Your task to perform on an android device: Open network settings Image 0: 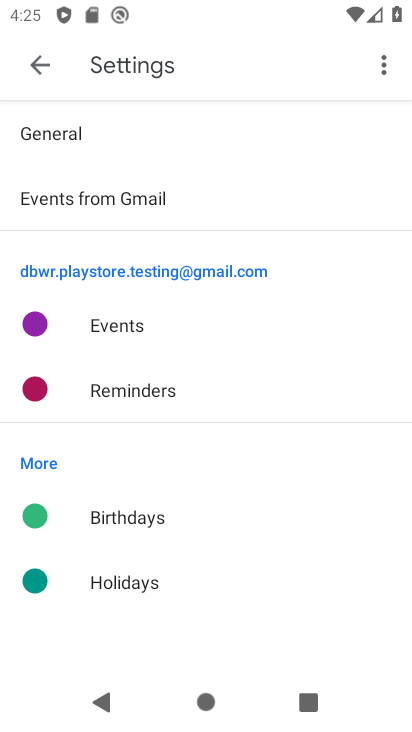
Step 0: click (31, 71)
Your task to perform on an android device: Open network settings Image 1: 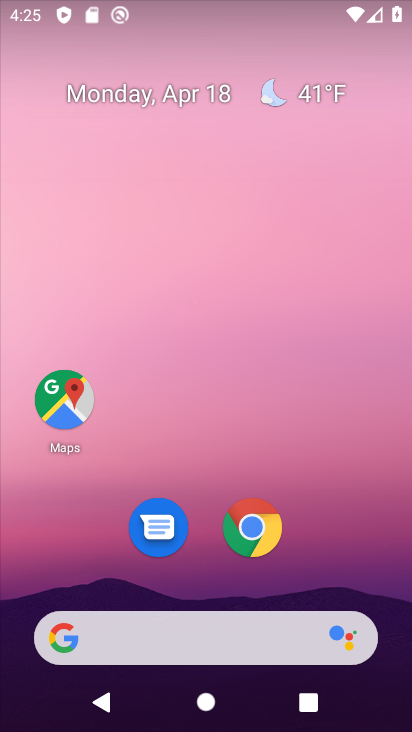
Step 1: drag from (328, 324) to (322, 128)
Your task to perform on an android device: Open network settings Image 2: 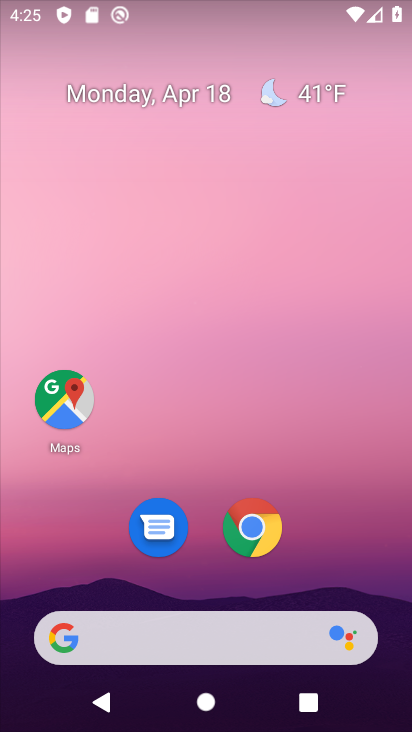
Step 2: drag from (331, 507) to (279, 105)
Your task to perform on an android device: Open network settings Image 3: 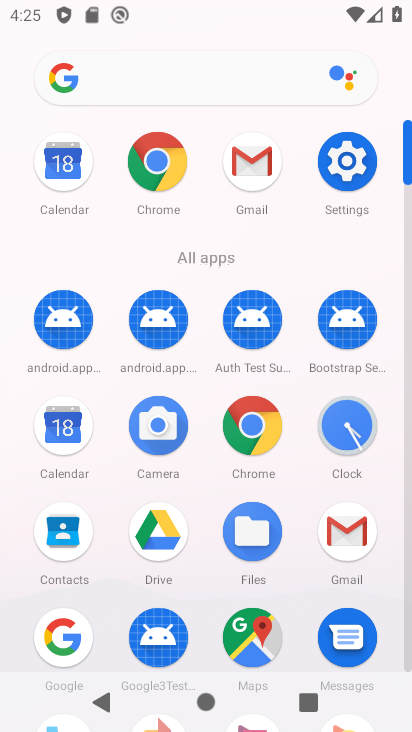
Step 3: click (335, 170)
Your task to perform on an android device: Open network settings Image 4: 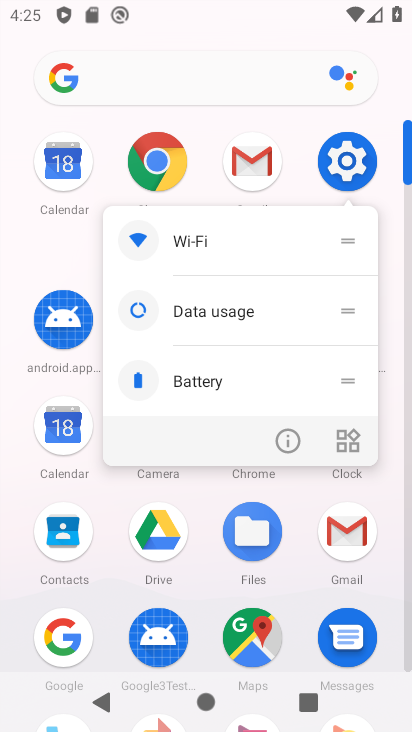
Step 4: click (335, 170)
Your task to perform on an android device: Open network settings Image 5: 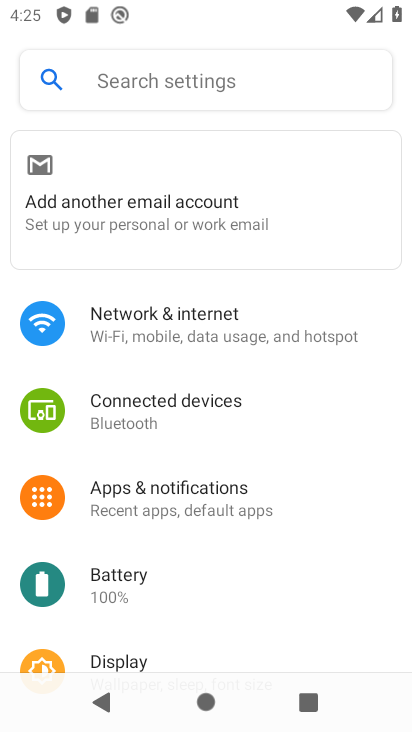
Step 5: click (209, 319)
Your task to perform on an android device: Open network settings Image 6: 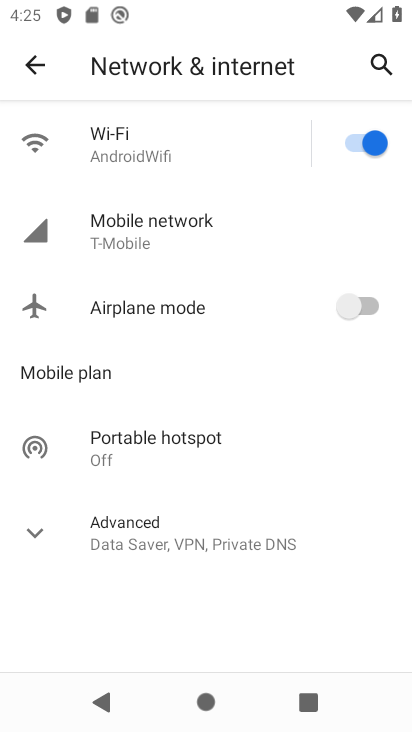
Step 6: task complete